Your task to perform on an android device: Open Youtube and go to "Your channel" Image 0: 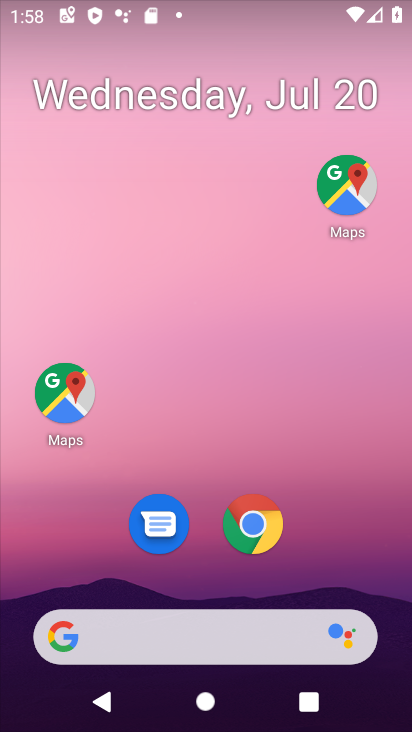
Step 0: drag from (302, 567) to (258, 134)
Your task to perform on an android device: Open Youtube and go to "Your channel" Image 1: 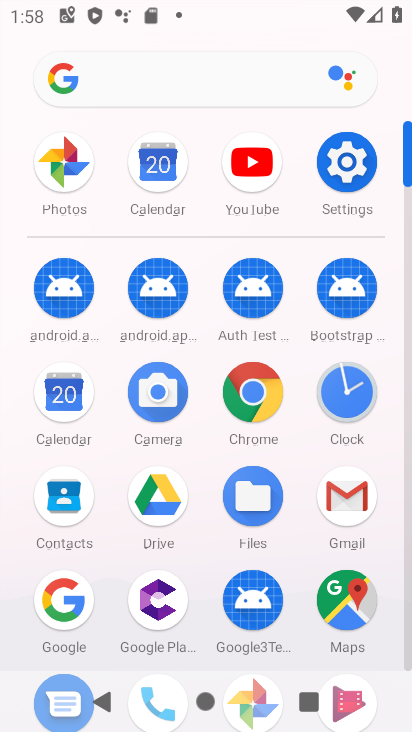
Step 1: click (243, 170)
Your task to perform on an android device: Open Youtube and go to "Your channel" Image 2: 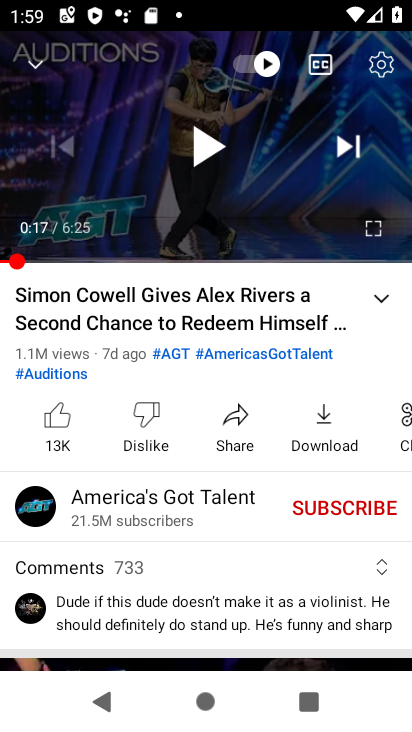
Step 2: press back button
Your task to perform on an android device: Open Youtube and go to "Your channel" Image 3: 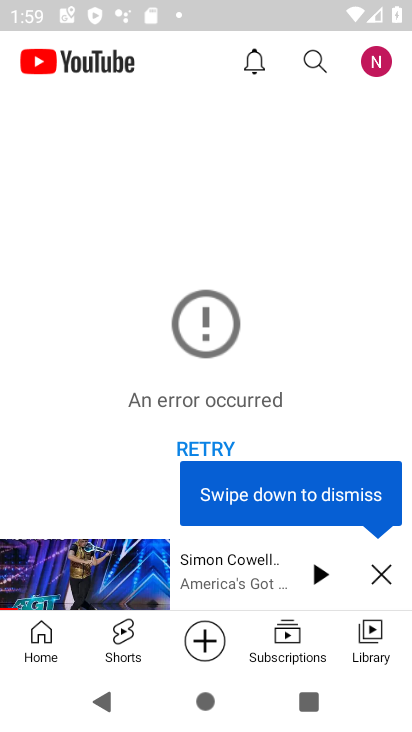
Step 3: click (379, 567)
Your task to perform on an android device: Open Youtube and go to "Your channel" Image 4: 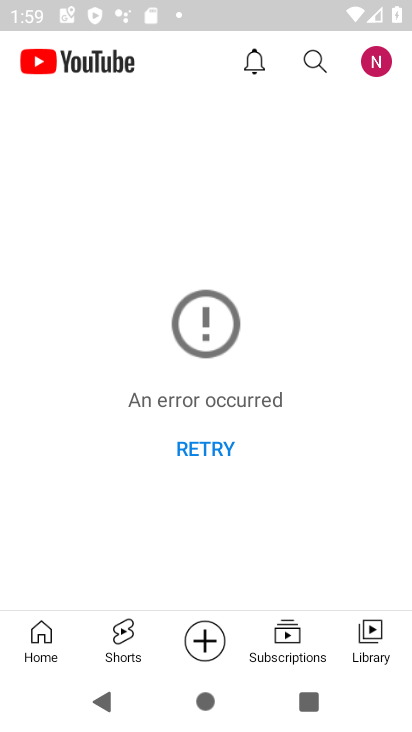
Step 4: click (377, 62)
Your task to perform on an android device: Open Youtube and go to "Your channel" Image 5: 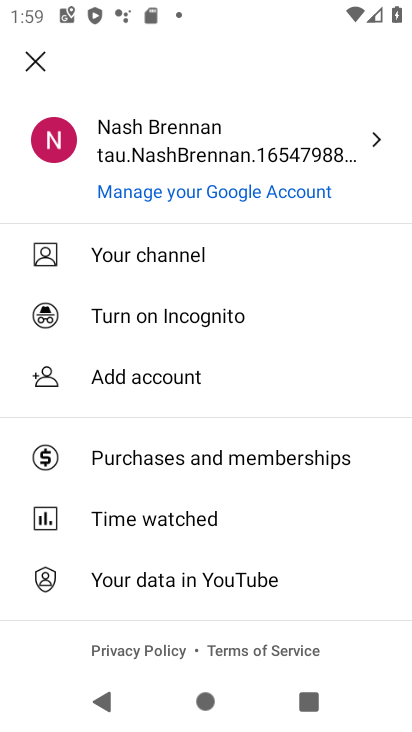
Step 5: click (188, 244)
Your task to perform on an android device: Open Youtube and go to "Your channel" Image 6: 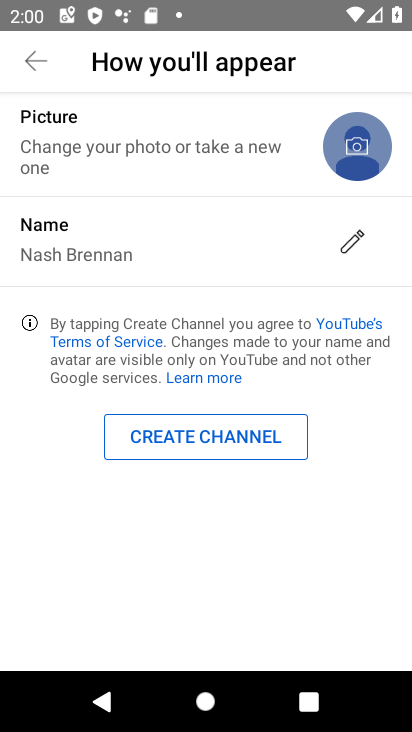
Step 6: click (267, 431)
Your task to perform on an android device: Open Youtube and go to "Your channel" Image 7: 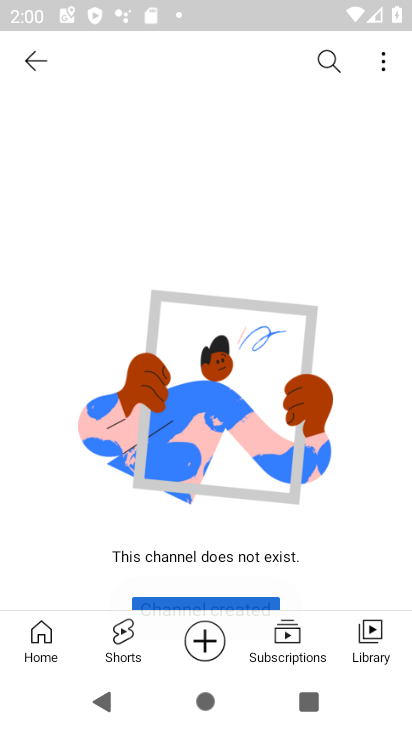
Step 7: task complete